Your task to perform on an android device: Open Youtube and go to the subscriptions tab Image 0: 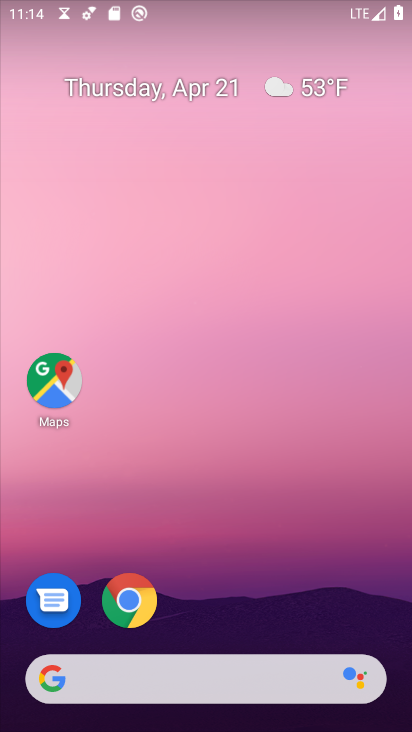
Step 0: drag from (222, 603) to (222, 33)
Your task to perform on an android device: Open Youtube and go to the subscriptions tab Image 1: 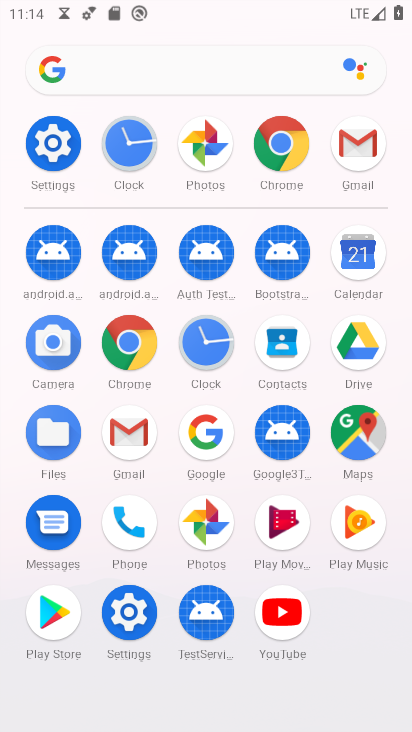
Step 1: click (286, 611)
Your task to perform on an android device: Open Youtube and go to the subscriptions tab Image 2: 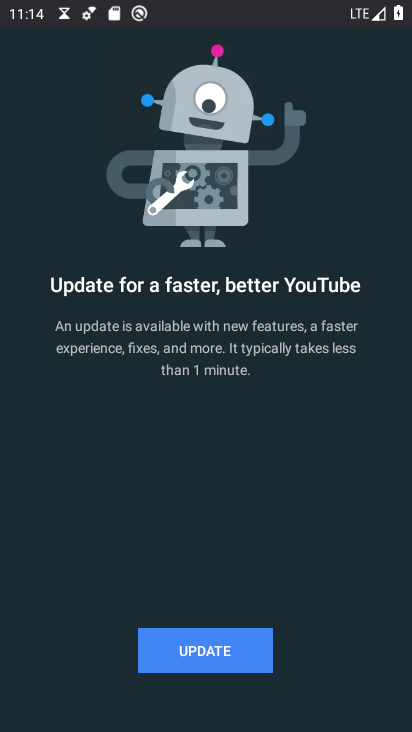
Step 2: click (220, 646)
Your task to perform on an android device: Open Youtube and go to the subscriptions tab Image 3: 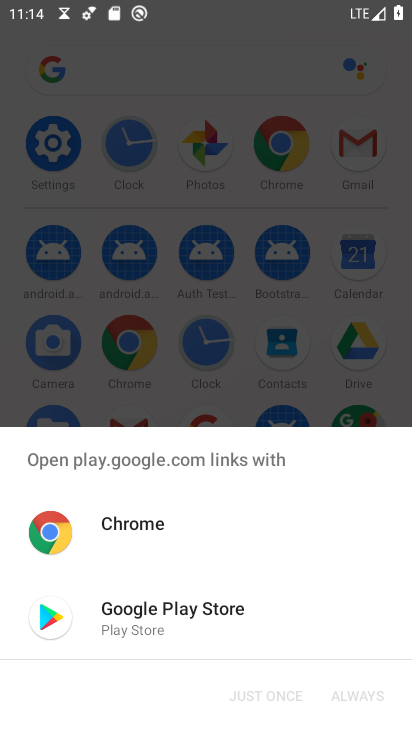
Step 3: click (220, 394)
Your task to perform on an android device: Open Youtube and go to the subscriptions tab Image 4: 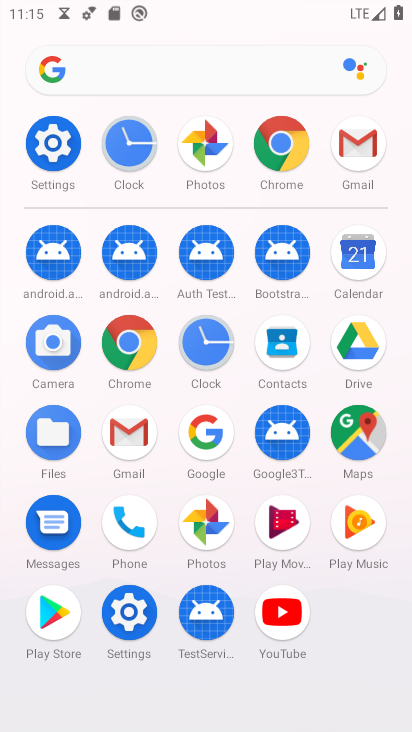
Step 4: click (279, 619)
Your task to perform on an android device: Open Youtube and go to the subscriptions tab Image 5: 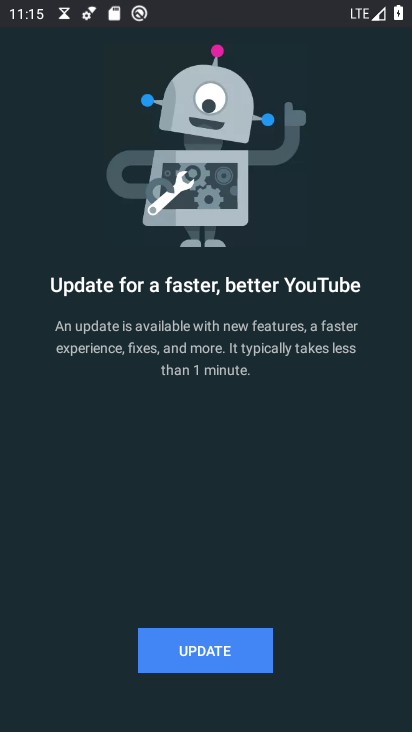
Step 5: click (223, 656)
Your task to perform on an android device: Open Youtube and go to the subscriptions tab Image 6: 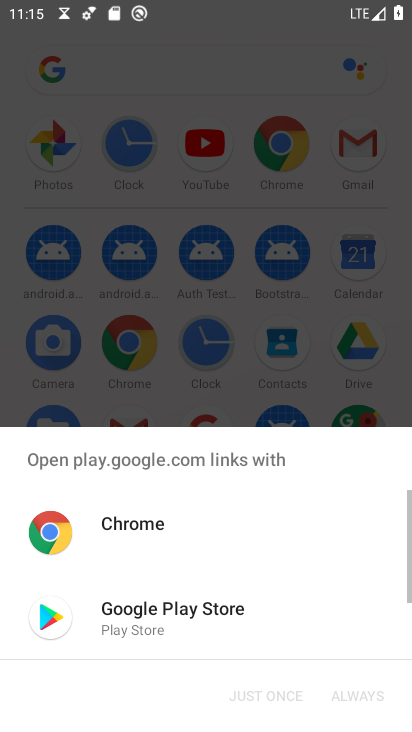
Step 6: click (133, 610)
Your task to perform on an android device: Open Youtube and go to the subscriptions tab Image 7: 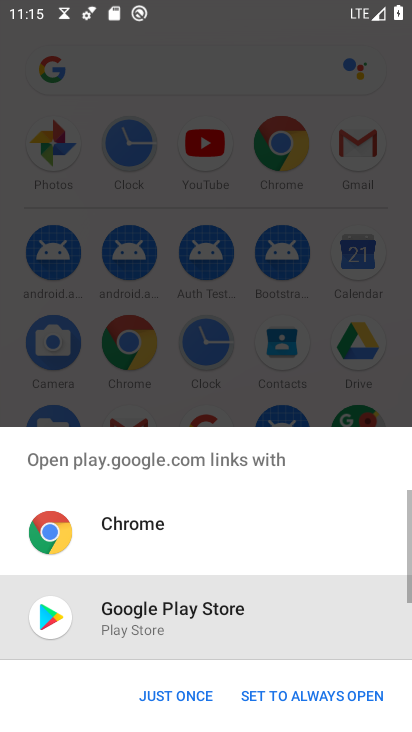
Step 7: click (174, 678)
Your task to perform on an android device: Open Youtube and go to the subscriptions tab Image 8: 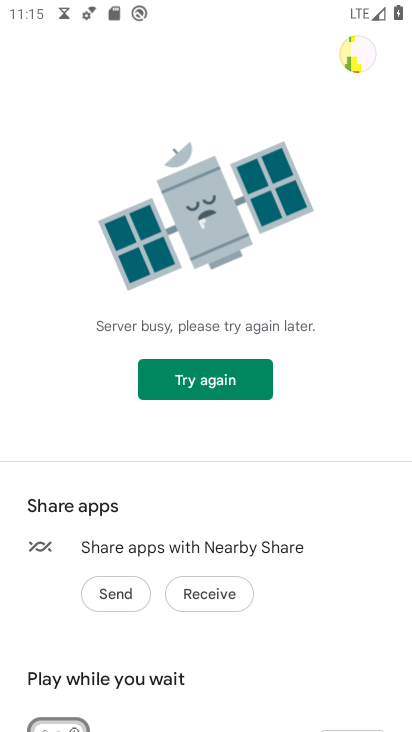
Step 8: task complete